Your task to perform on an android device: Show me the alarms in the clock app Image 0: 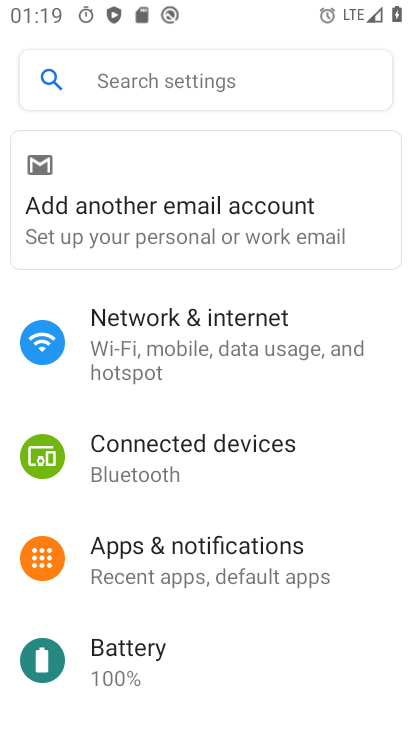
Step 0: drag from (358, 663) to (374, 308)
Your task to perform on an android device: Show me the alarms in the clock app Image 1: 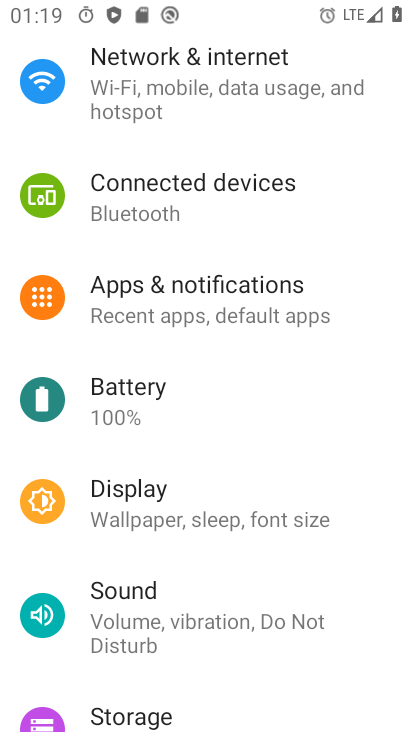
Step 1: press home button
Your task to perform on an android device: Show me the alarms in the clock app Image 2: 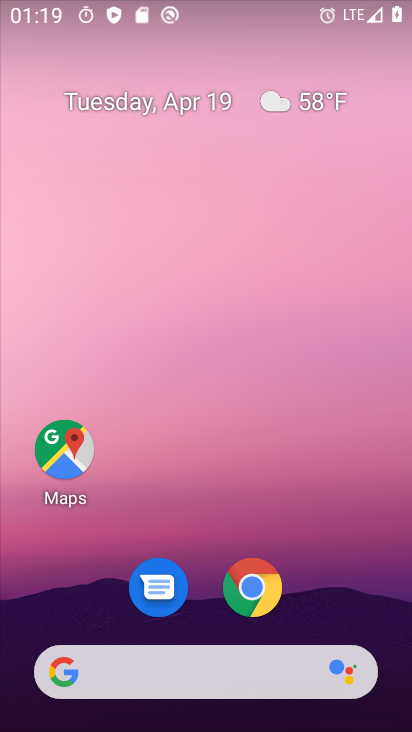
Step 2: drag from (347, 428) to (301, 21)
Your task to perform on an android device: Show me the alarms in the clock app Image 3: 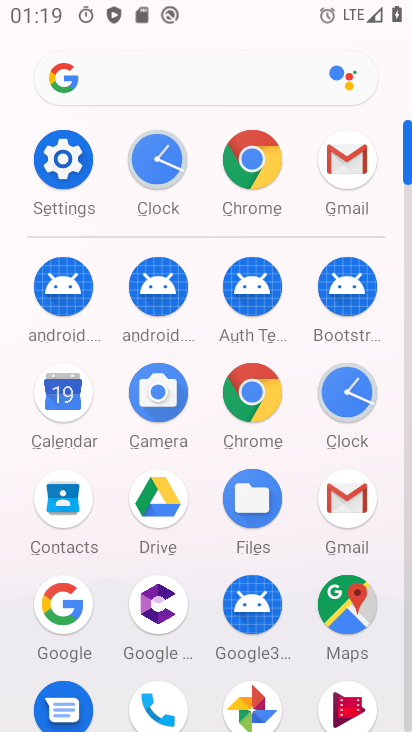
Step 3: click (346, 392)
Your task to perform on an android device: Show me the alarms in the clock app Image 4: 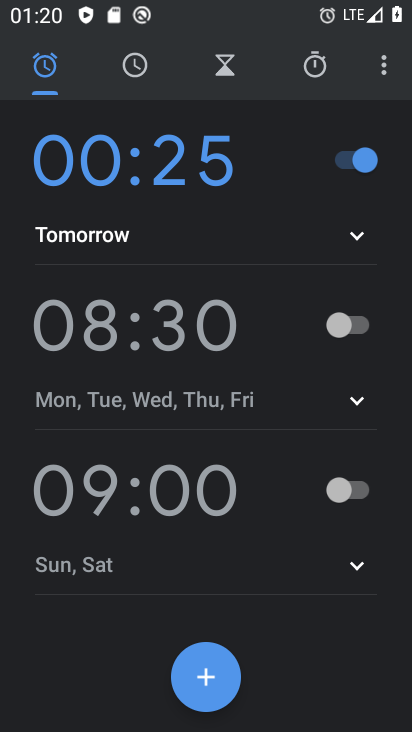
Step 4: task complete